Your task to perform on an android device: What's the weather going to be tomorrow? Image 0: 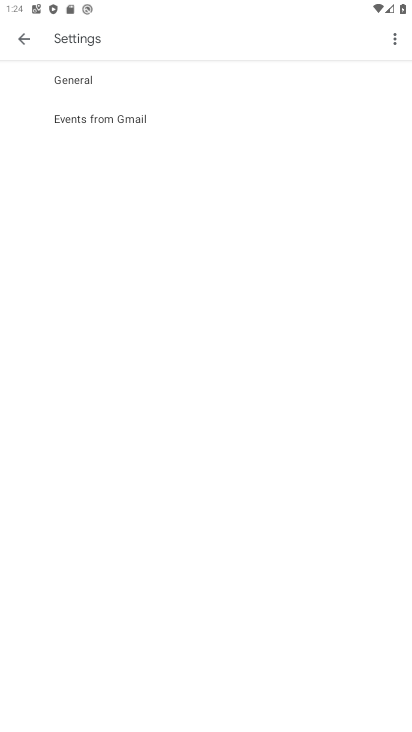
Step 0: press home button
Your task to perform on an android device: What's the weather going to be tomorrow? Image 1: 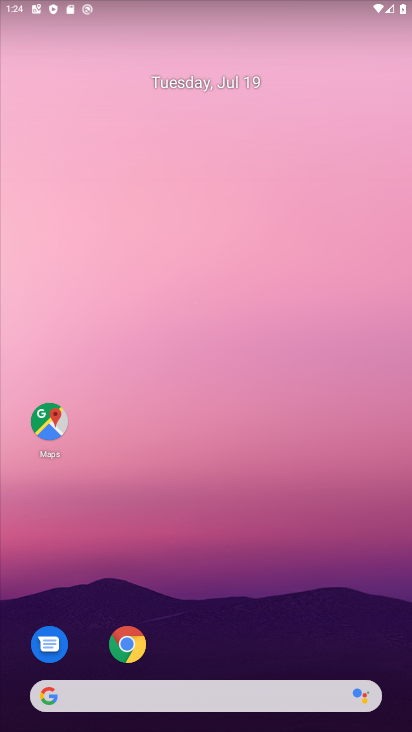
Step 1: click (235, 686)
Your task to perform on an android device: What's the weather going to be tomorrow? Image 2: 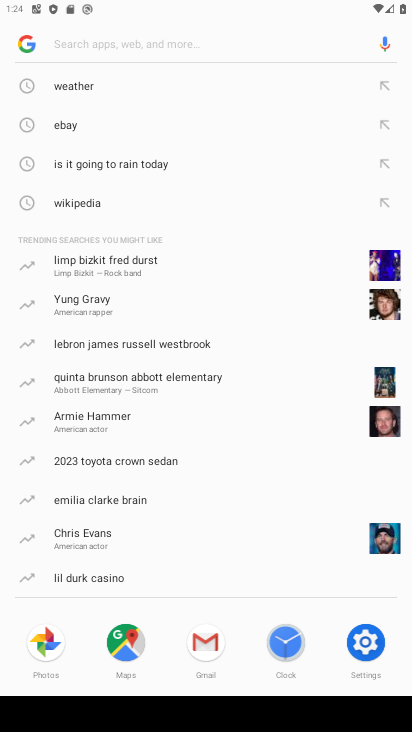
Step 2: click (80, 96)
Your task to perform on an android device: What's the weather going to be tomorrow? Image 3: 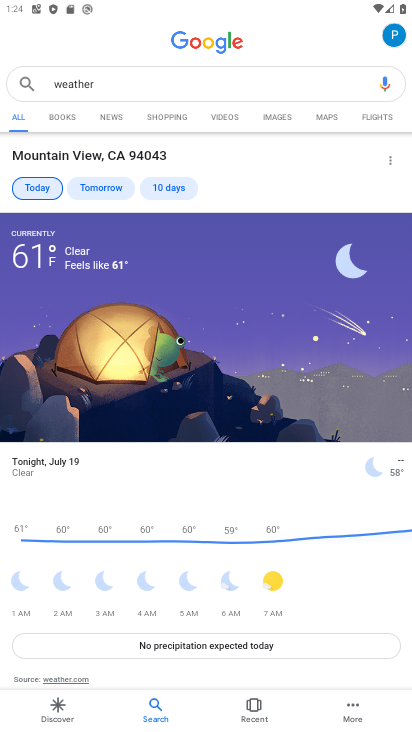
Step 3: click (103, 179)
Your task to perform on an android device: What's the weather going to be tomorrow? Image 4: 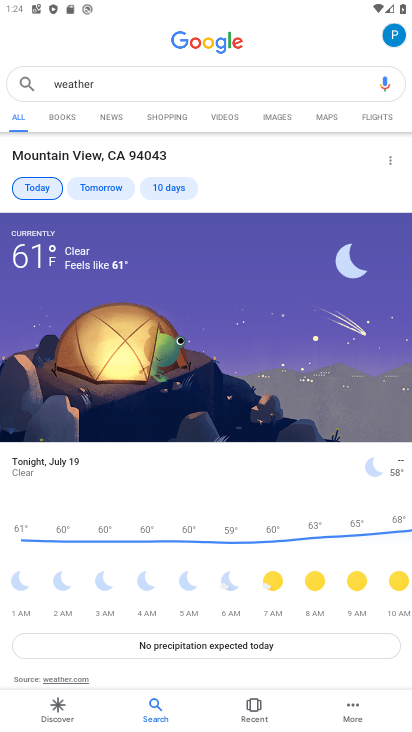
Step 4: click (106, 194)
Your task to perform on an android device: What's the weather going to be tomorrow? Image 5: 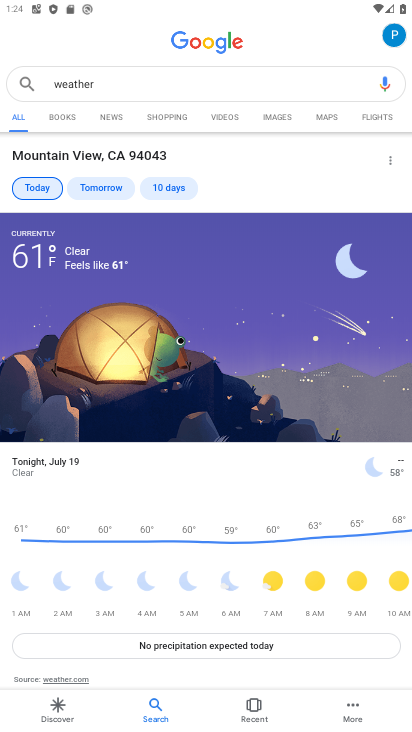
Step 5: click (112, 186)
Your task to perform on an android device: What's the weather going to be tomorrow? Image 6: 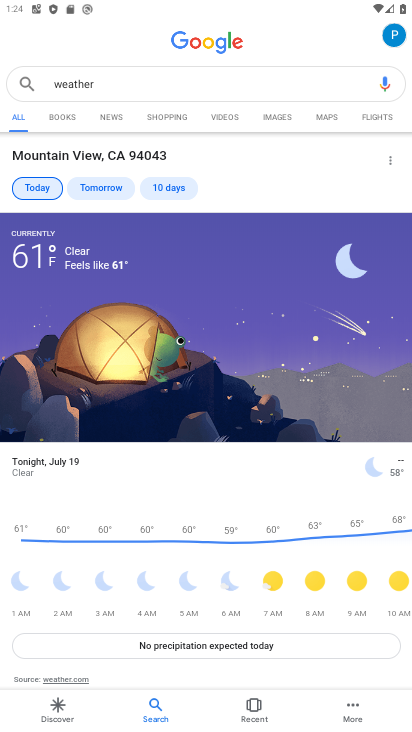
Step 6: click (111, 184)
Your task to perform on an android device: What's the weather going to be tomorrow? Image 7: 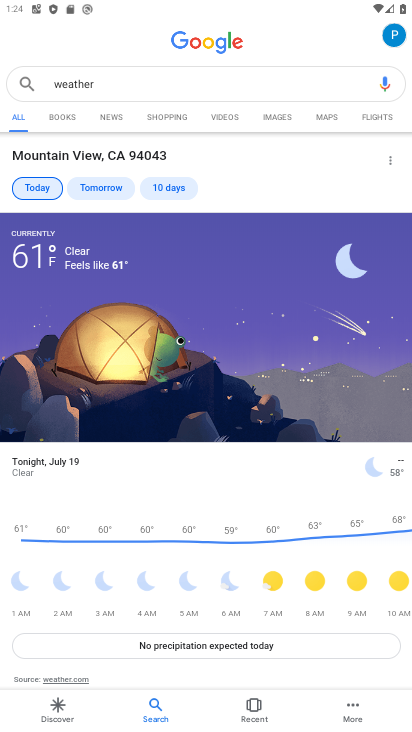
Step 7: task complete